Your task to perform on an android device: Go to Google Image 0: 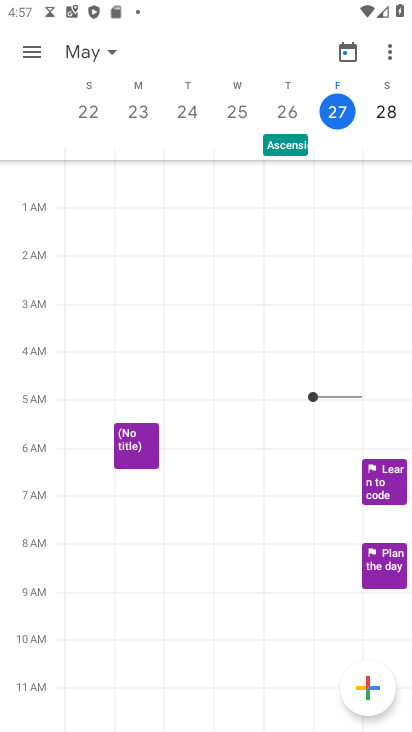
Step 0: press home button
Your task to perform on an android device: Go to Google Image 1: 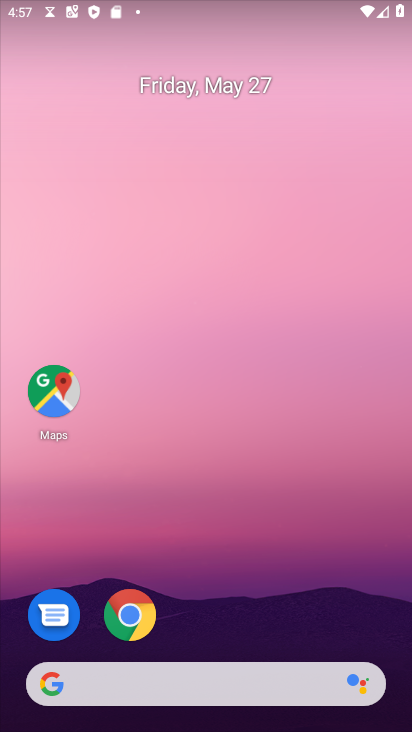
Step 1: drag from (210, 532) to (150, 7)
Your task to perform on an android device: Go to Google Image 2: 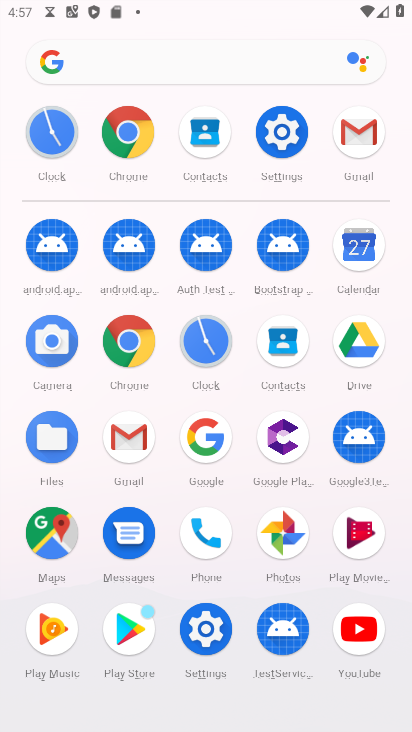
Step 2: click (203, 450)
Your task to perform on an android device: Go to Google Image 3: 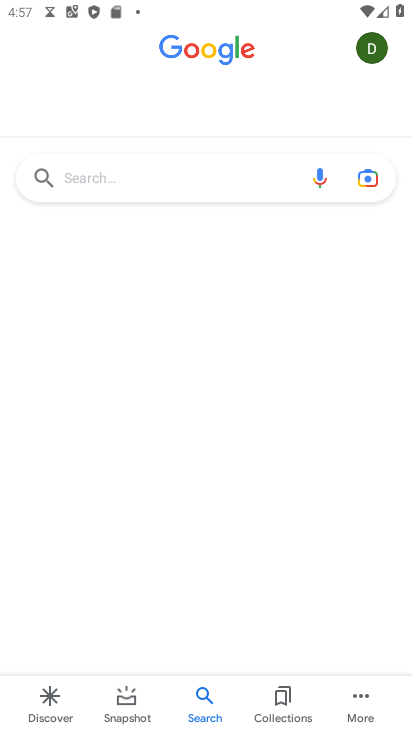
Step 3: task complete